Your task to perform on an android device: Go to Wikipedia Image 0: 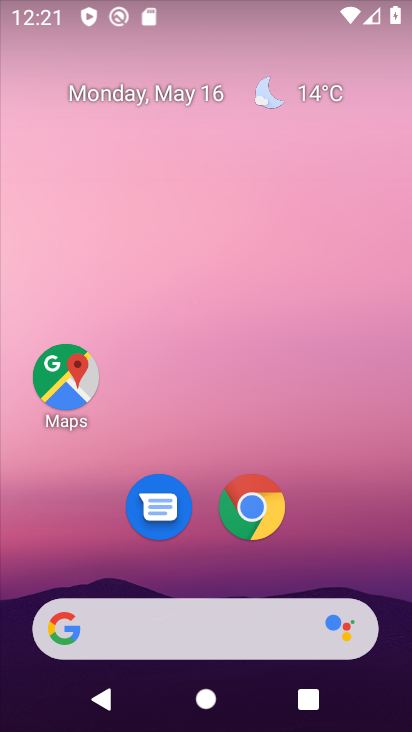
Step 0: drag from (225, 533) to (283, 173)
Your task to perform on an android device: Go to Wikipedia Image 1: 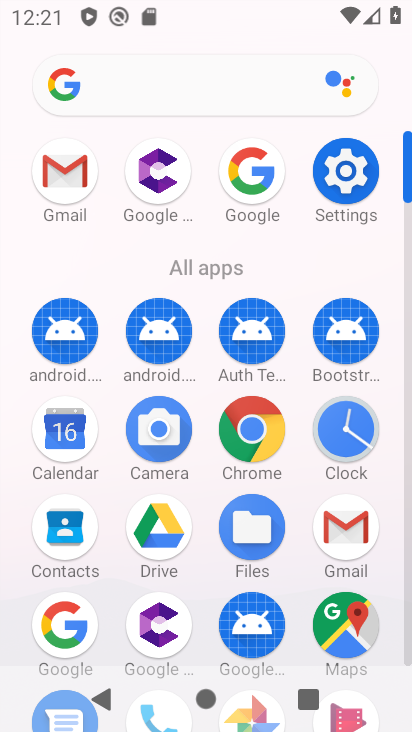
Step 1: click (252, 427)
Your task to perform on an android device: Go to Wikipedia Image 2: 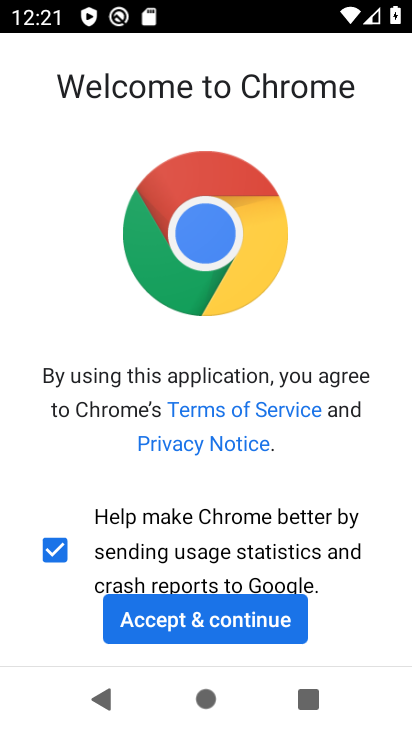
Step 2: click (208, 602)
Your task to perform on an android device: Go to Wikipedia Image 3: 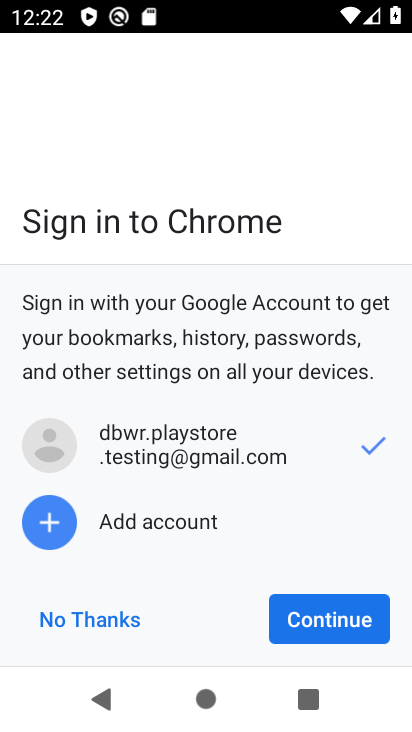
Step 3: click (292, 615)
Your task to perform on an android device: Go to Wikipedia Image 4: 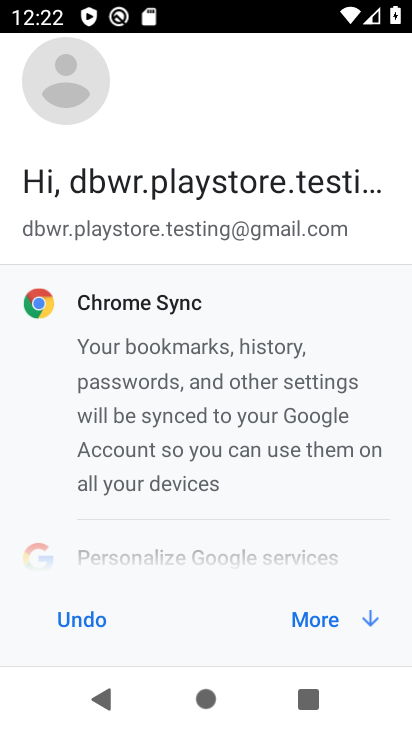
Step 4: click (312, 623)
Your task to perform on an android device: Go to Wikipedia Image 5: 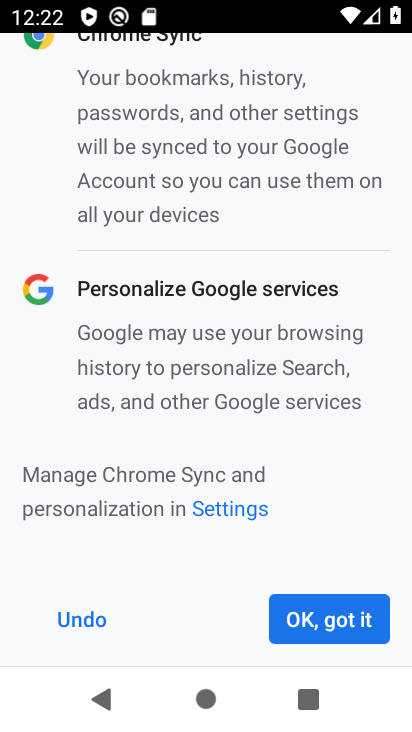
Step 5: click (313, 622)
Your task to perform on an android device: Go to Wikipedia Image 6: 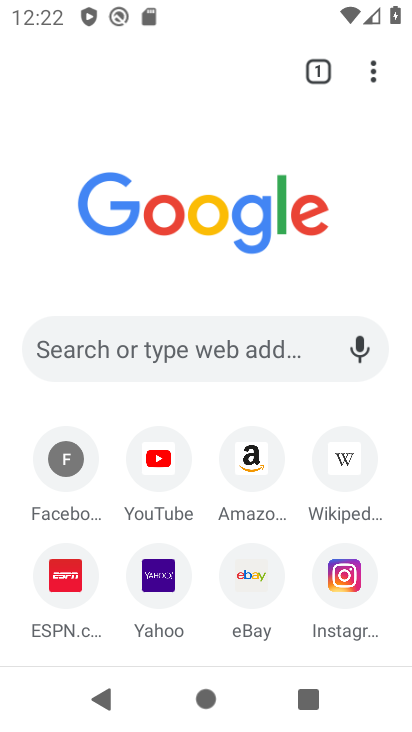
Step 6: click (329, 471)
Your task to perform on an android device: Go to Wikipedia Image 7: 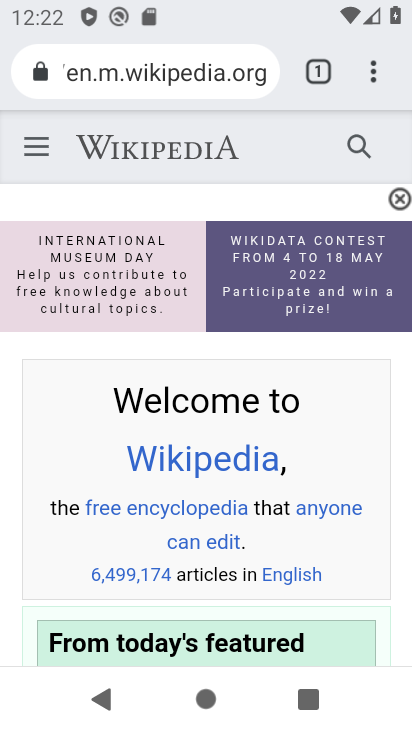
Step 7: task complete